Your task to perform on an android device: see creations saved in the google photos Image 0: 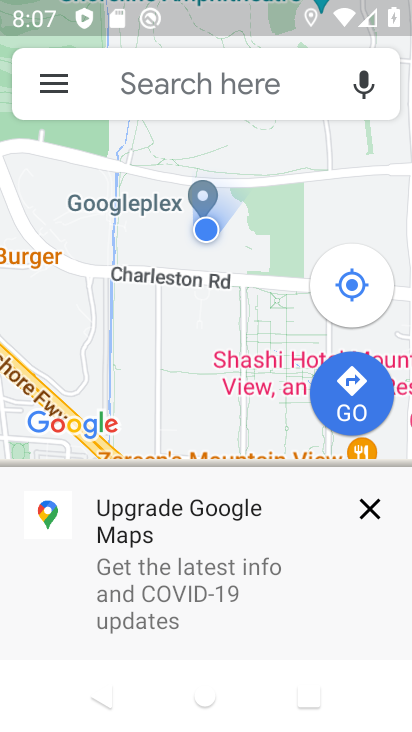
Step 0: press home button
Your task to perform on an android device: see creations saved in the google photos Image 1: 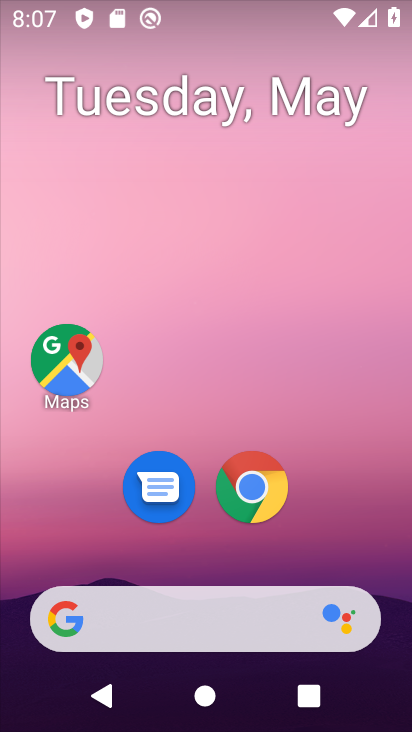
Step 1: drag from (311, 540) to (313, 125)
Your task to perform on an android device: see creations saved in the google photos Image 2: 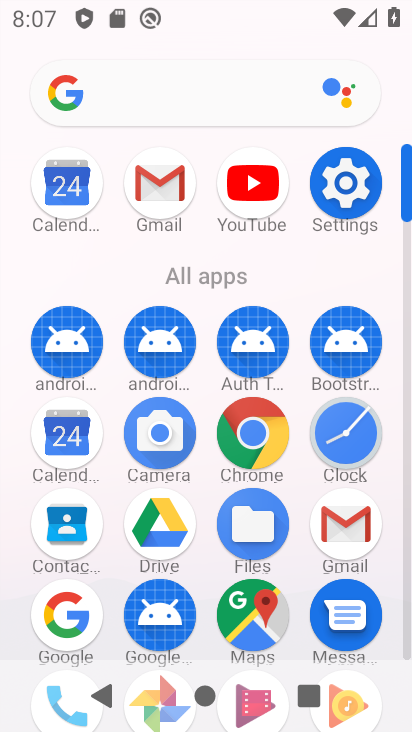
Step 2: drag from (313, 288) to (313, 40)
Your task to perform on an android device: see creations saved in the google photos Image 3: 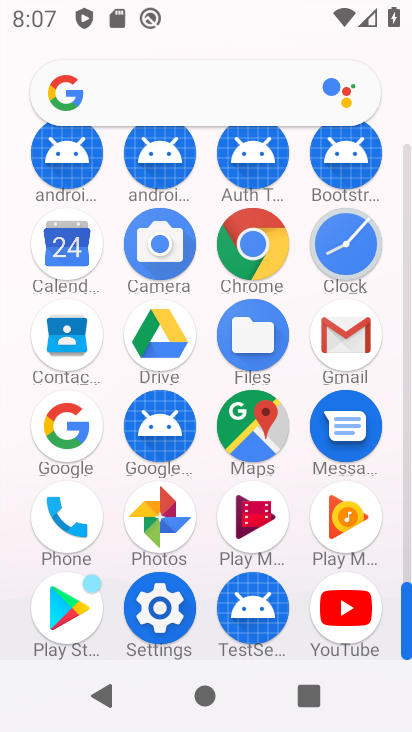
Step 3: click (146, 514)
Your task to perform on an android device: see creations saved in the google photos Image 4: 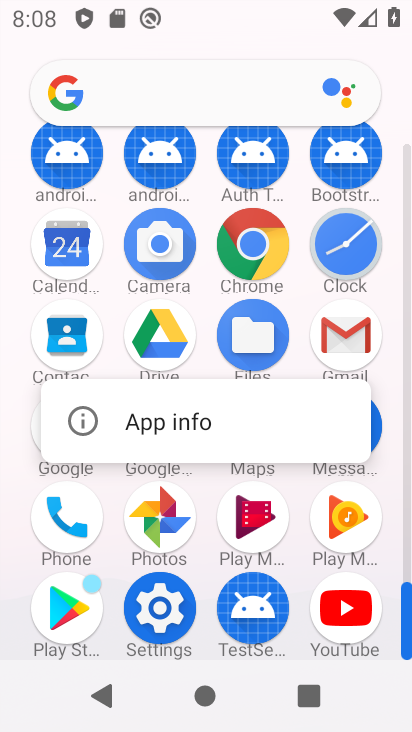
Step 4: click (147, 429)
Your task to perform on an android device: see creations saved in the google photos Image 5: 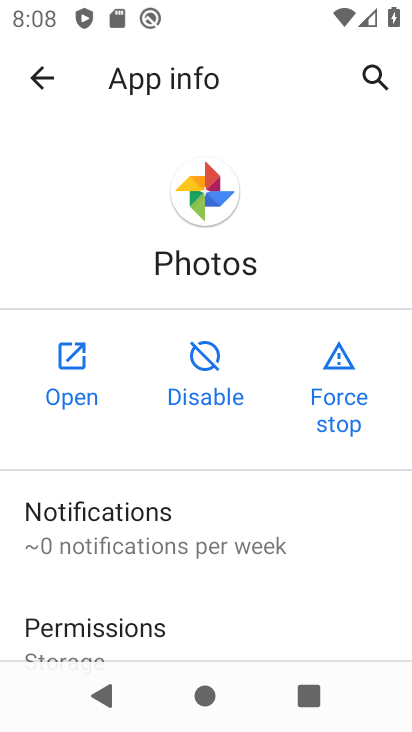
Step 5: press back button
Your task to perform on an android device: see creations saved in the google photos Image 6: 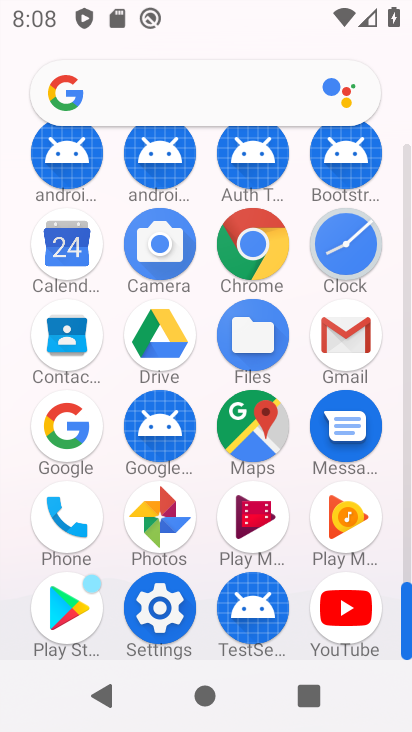
Step 6: click (159, 507)
Your task to perform on an android device: see creations saved in the google photos Image 7: 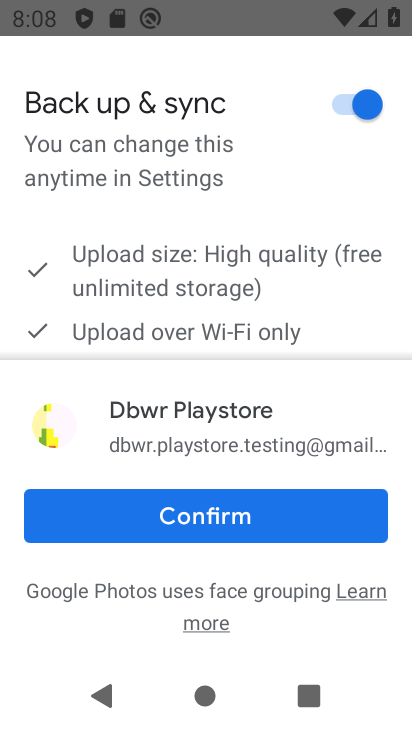
Step 7: click (287, 502)
Your task to perform on an android device: see creations saved in the google photos Image 8: 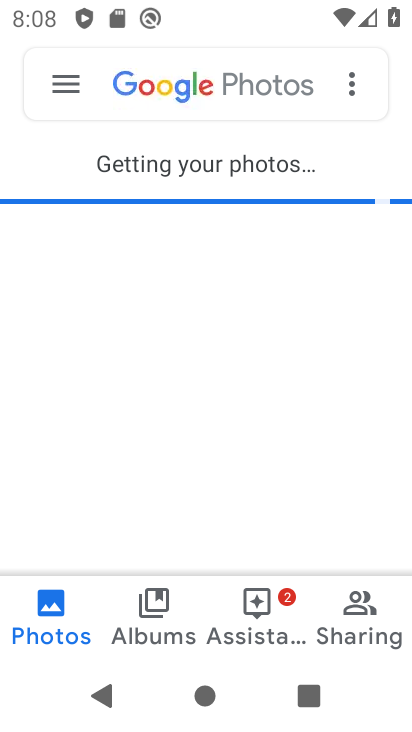
Step 8: click (170, 81)
Your task to perform on an android device: see creations saved in the google photos Image 9: 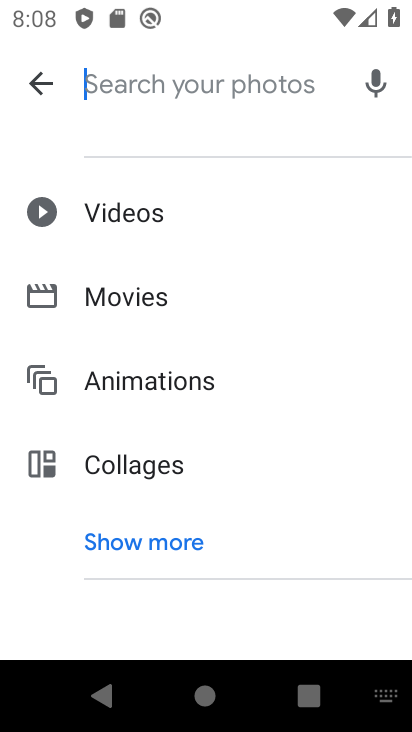
Step 9: click (156, 542)
Your task to perform on an android device: see creations saved in the google photos Image 10: 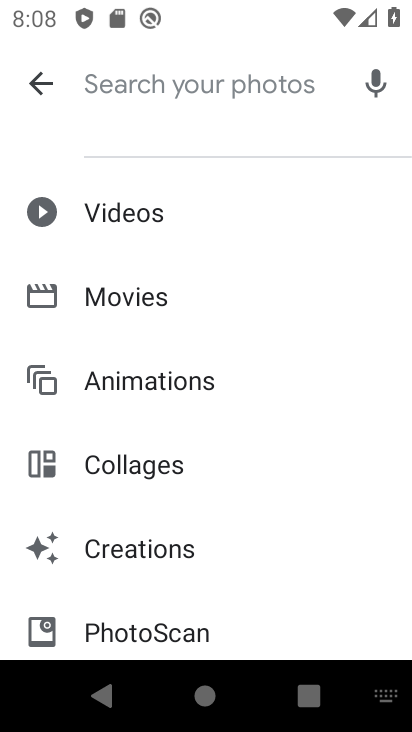
Step 10: click (154, 552)
Your task to perform on an android device: see creations saved in the google photos Image 11: 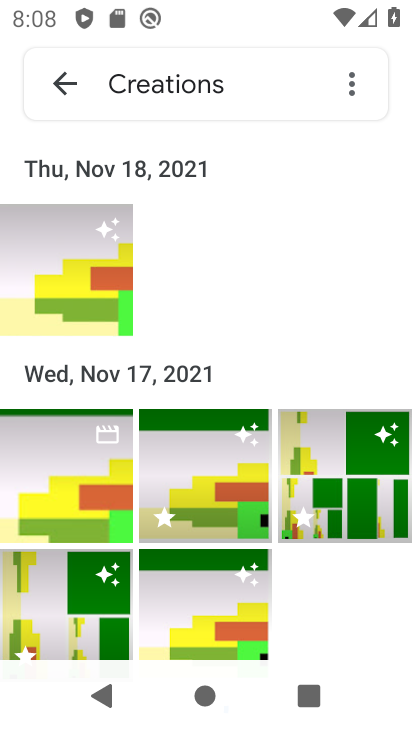
Step 11: task complete